Your task to perform on an android device: change the clock display to show seconds Image 0: 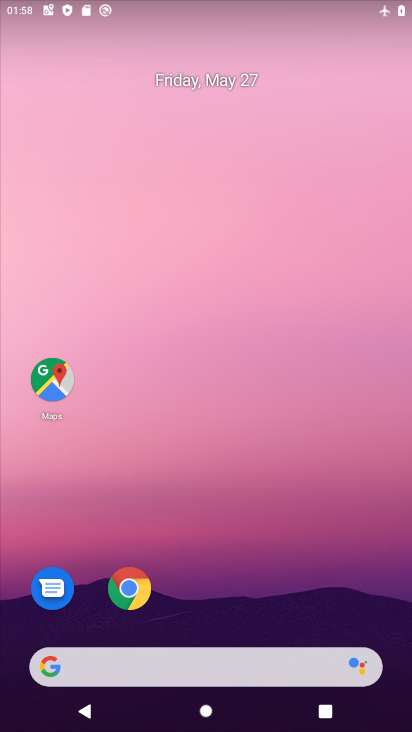
Step 0: drag from (358, 618) to (356, 123)
Your task to perform on an android device: change the clock display to show seconds Image 1: 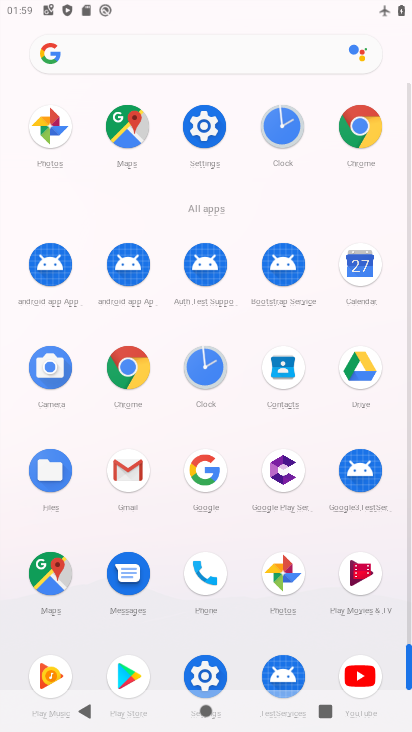
Step 1: click (201, 364)
Your task to perform on an android device: change the clock display to show seconds Image 2: 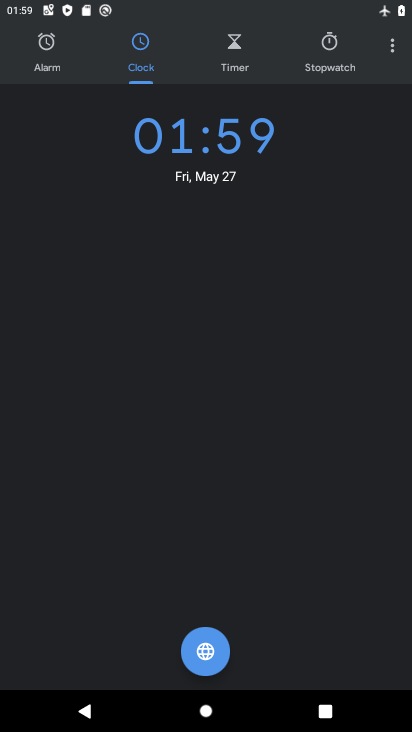
Step 2: click (394, 48)
Your task to perform on an android device: change the clock display to show seconds Image 3: 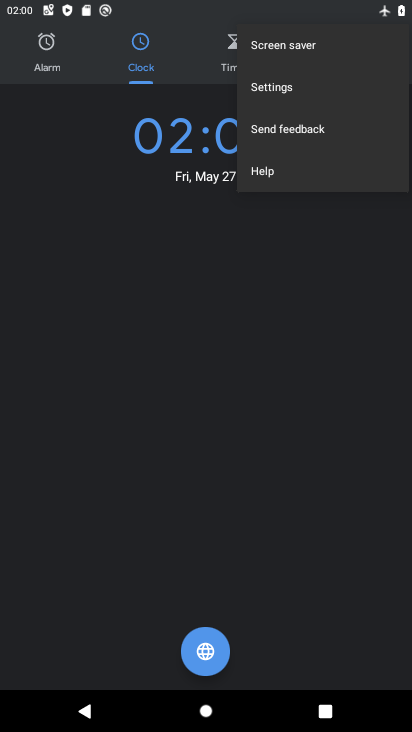
Step 3: click (255, 88)
Your task to perform on an android device: change the clock display to show seconds Image 4: 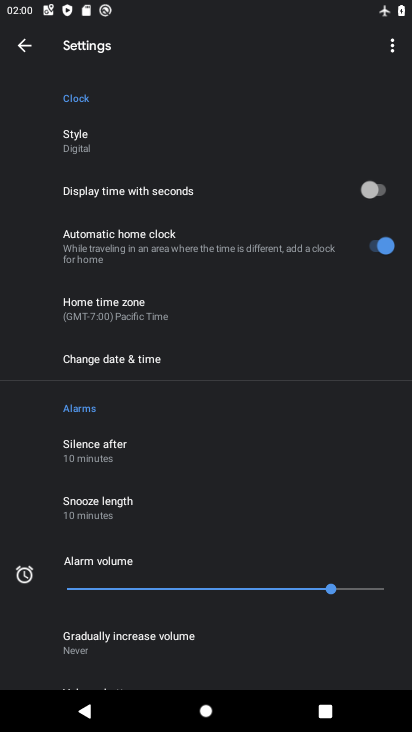
Step 4: click (380, 190)
Your task to perform on an android device: change the clock display to show seconds Image 5: 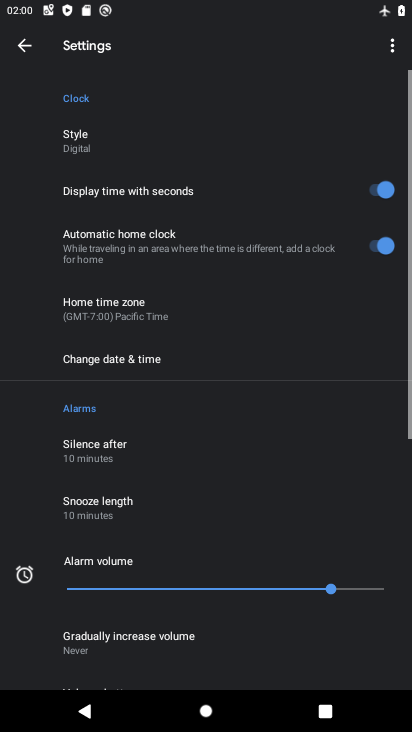
Step 5: task complete